Your task to perform on an android device: open wifi settings Image 0: 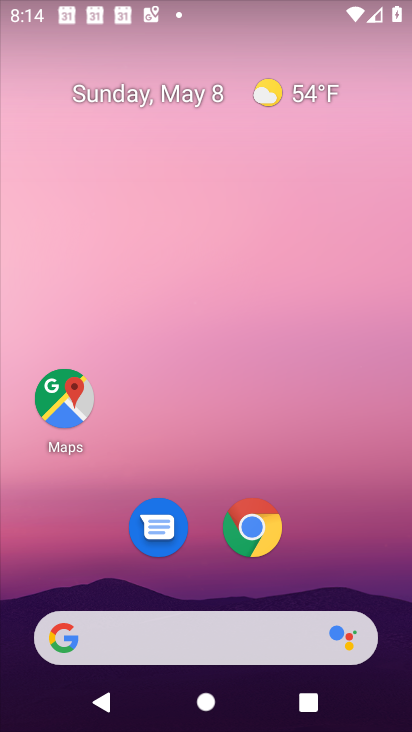
Step 0: drag from (332, 567) to (201, 192)
Your task to perform on an android device: open wifi settings Image 1: 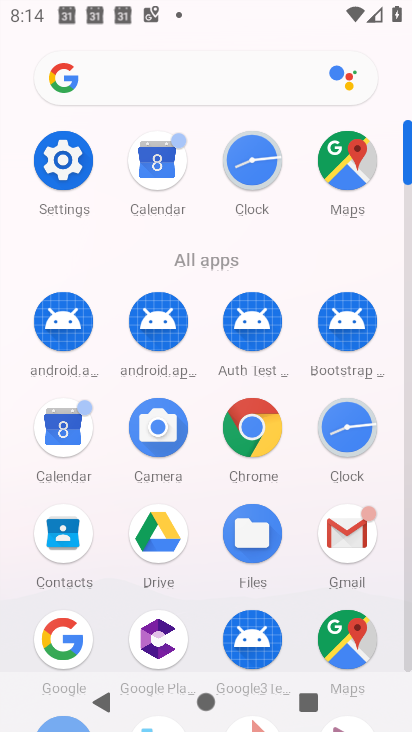
Step 1: click (56, 168)
Your task to perform on an android device: open wifi settings Image 2: 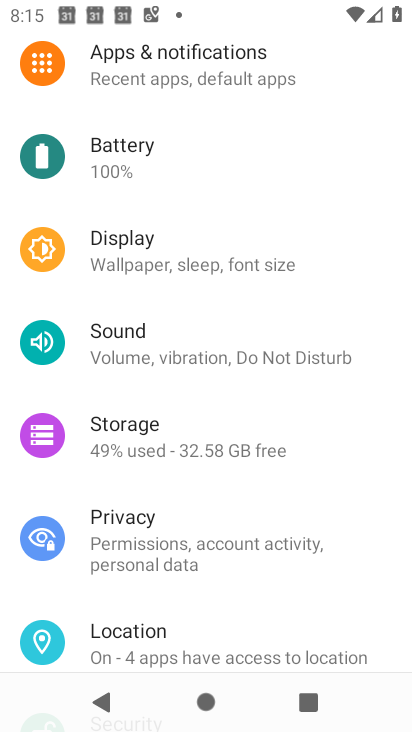
Step 2: drag from (198, 130) to (271, 338)
Your task to perform on an android device: open wifi settings Image 3: 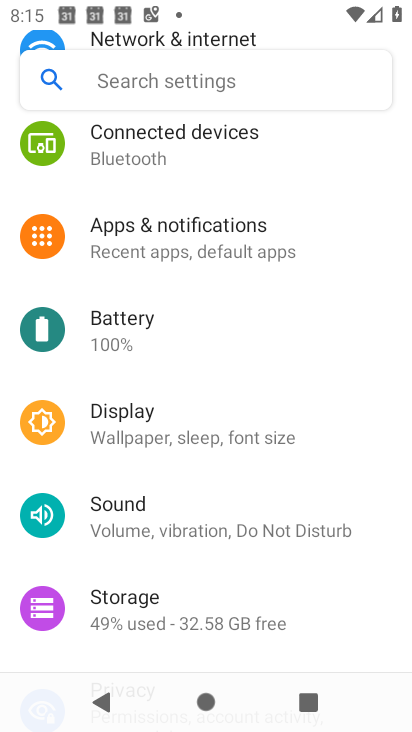
Step 3: drag from (265, 202) to (263, 436)
Your task to perform on an android device: open wifi settings Image 4: 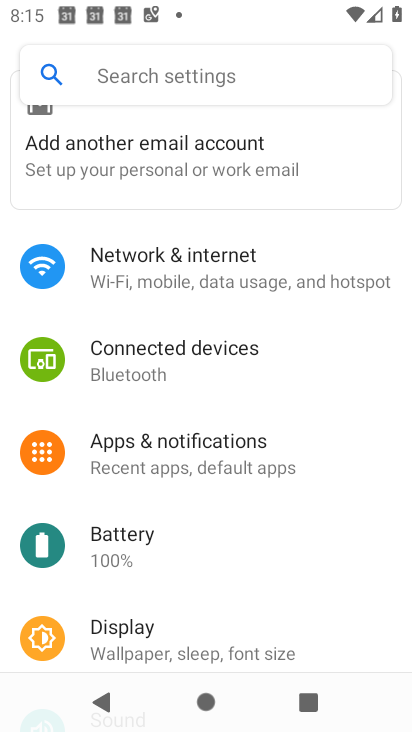
Step 4: click (248, 275)
Your task to perform on an android device: open wifi settings Image 5: 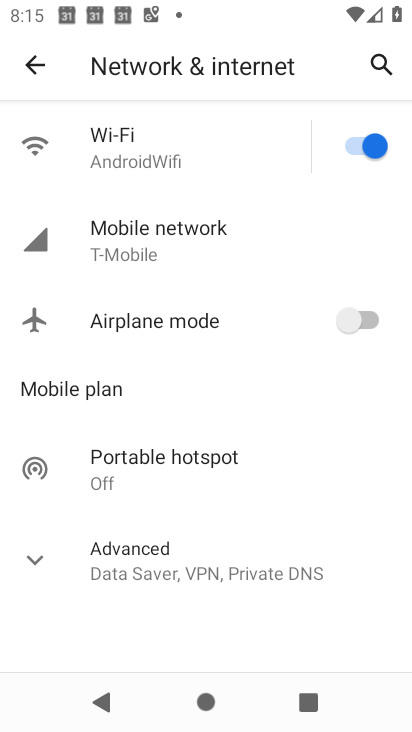
Step 5: click (132, 148)
Your task to perform on an android device: open wifi settings Image 6: 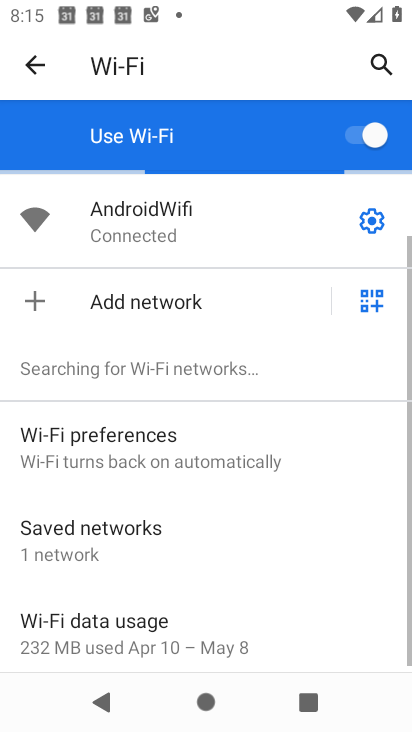
Step 6: task complete